Your task to perform on an android device: change notifications settings Image 0: 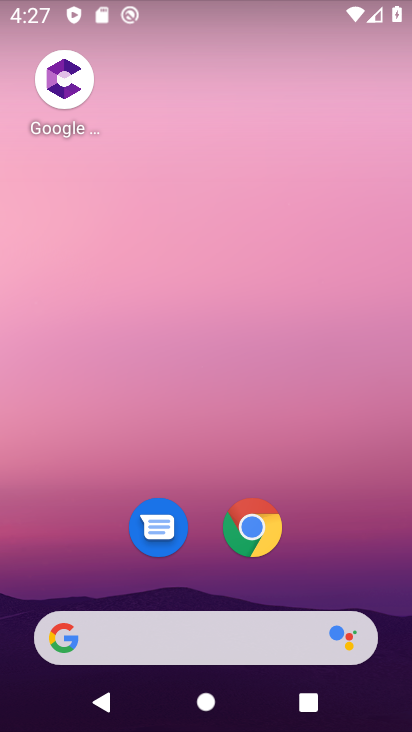
Step 0: drag from (224, 582) to (300, 110)
Your task to perform on an android device: change notifications settings Image 1: 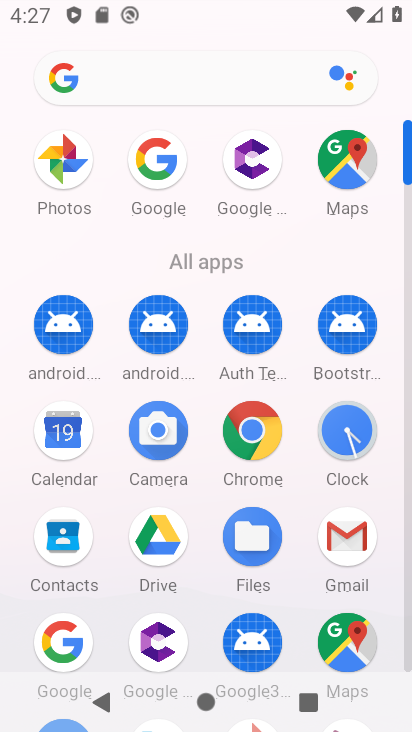
Step 1: drag from (205, 576) to (294, 155)
Your task to perform on an android device: change notifications settings Image 2: 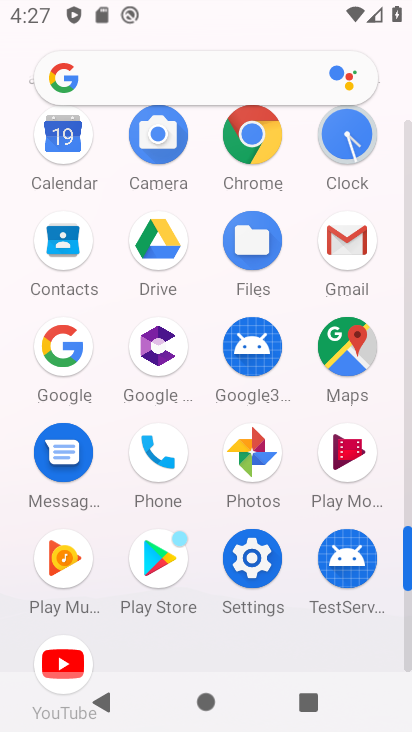
Step 2: click (250, 573)
Your task to perform on an android device: change notifications settings Image 3: 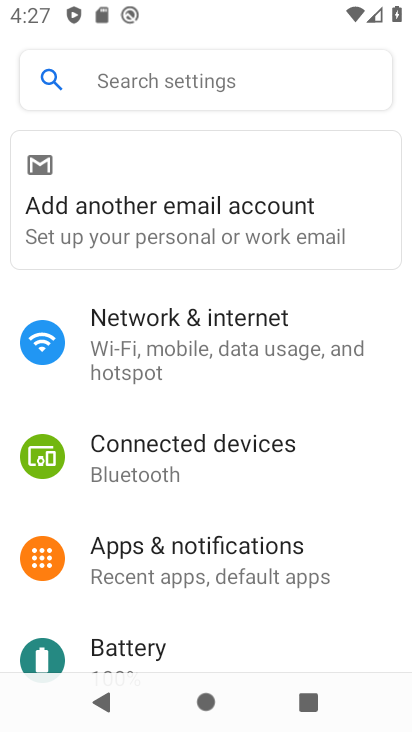
Step 3: click (250, 573)
Your task to perform on an android device: change notifications settings Image 4: 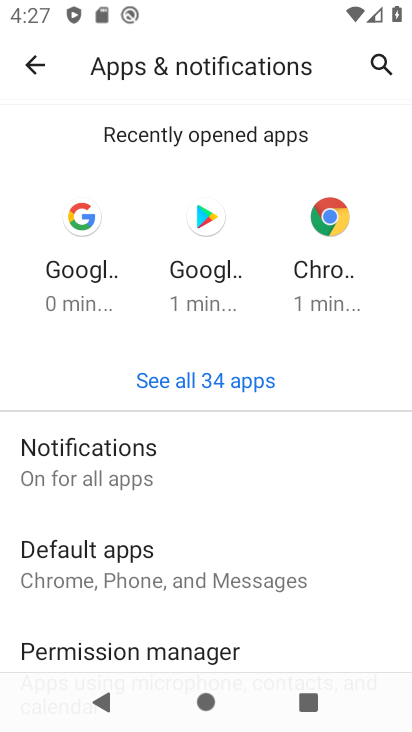
Step 4: click (149, 469)
Your task to perform on an android device: change notifications settings Image 5: 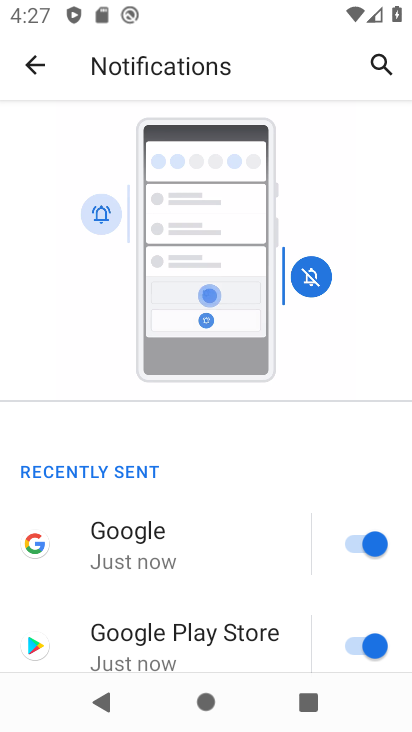
Step 5: drag from (249, 432) to (274, 206)
Your task to perform on an android device: change notifications settings Image 6: 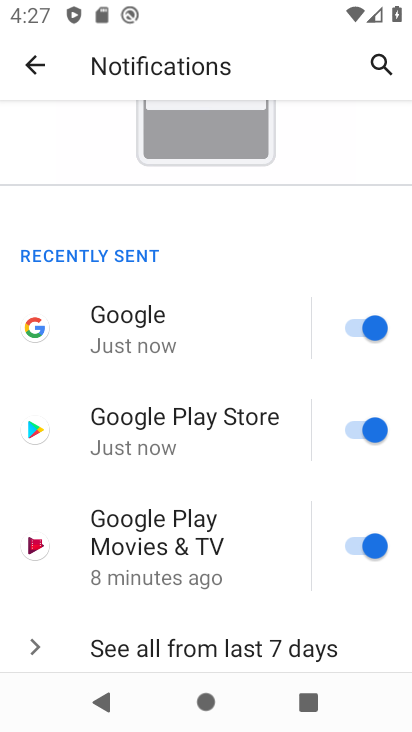
Step 6: drag from (199, 598) to (269, 123)
Your task to perform on an android device: change notifications settings Image 7: 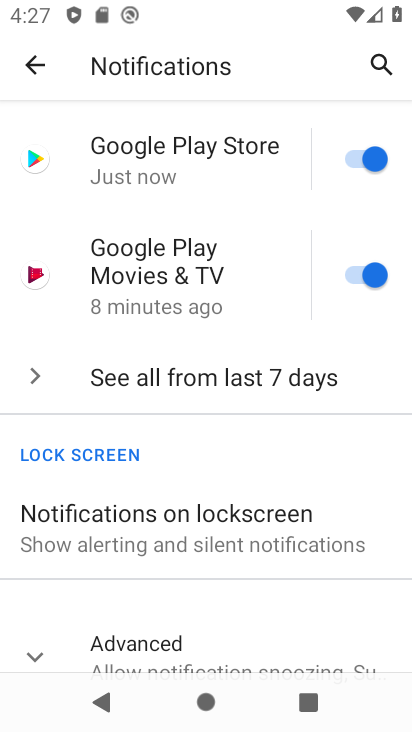
Step 7: click (186, 635)
Your task to perform on an android device: change notifications settings Image 8: 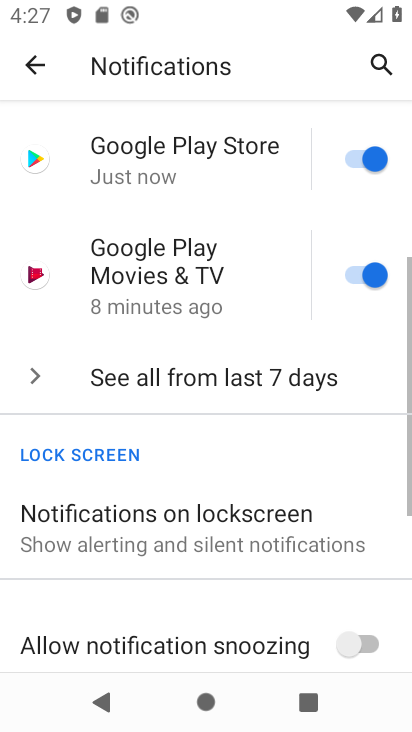
Step 8: drag from (273, 548) to (308, 82)
Your task to perform on an android device: change notifications settings Image 9: 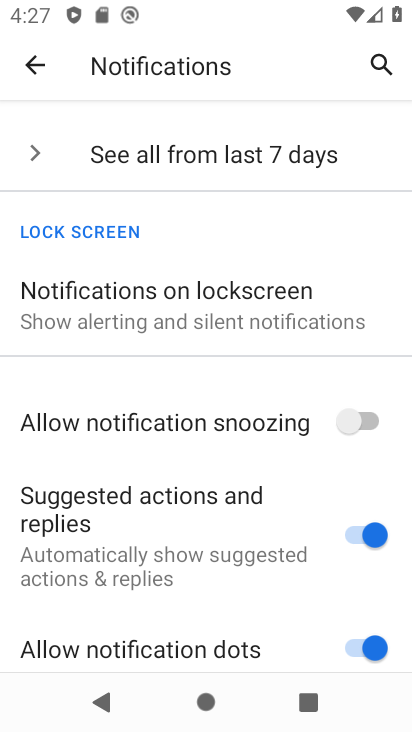
Step 9: click (342, 423)
Your task to perform on an android device: change notifications settings Image 10: 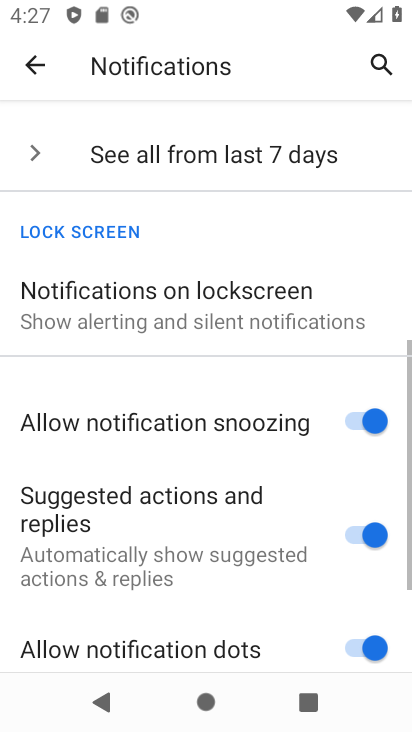
Step 10: click (379, 536)
Your task to perform on an android device: change notifications settings Image 11: 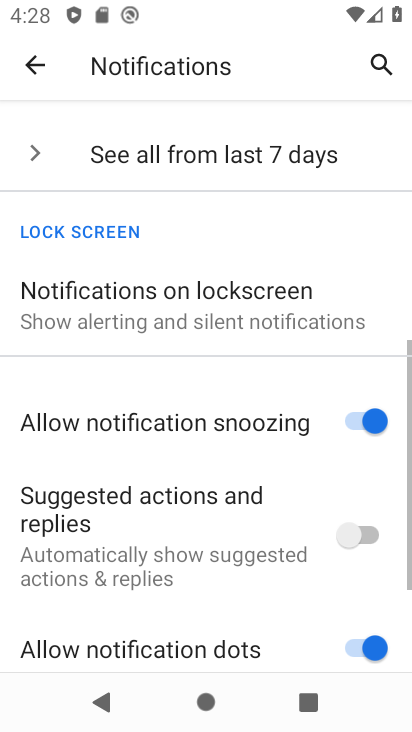
Step 11: click (370, 652)
Your task to perform on an android device: change notifications settings Image 12: 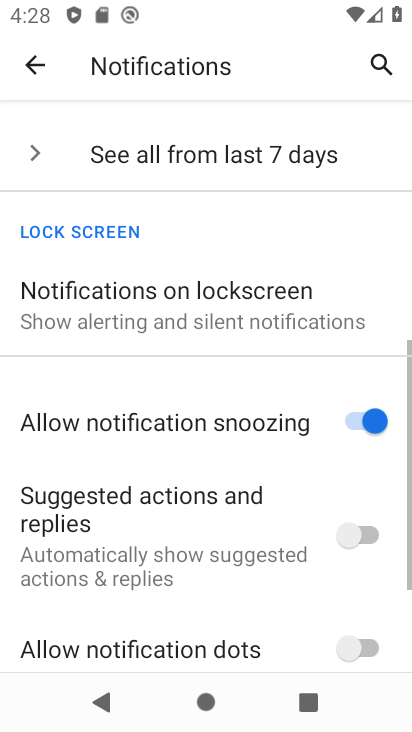
Step 12: task complete